Your task to perform on an android device: Search for Mexican restaurants on Maps Image 0: 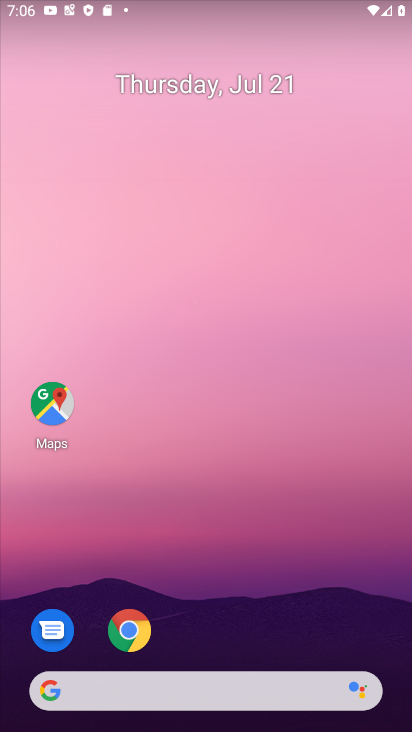
Step 0: click (45, 412)
Your task to perform on an android device: Search for Mexican restaurants on Maps Image 1: 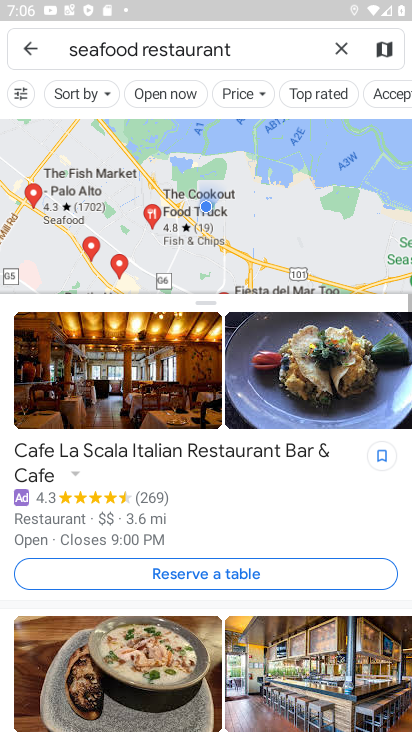
Step 1: click (344, 42)
Your task to perform on an android device: Search for Mexican restaurants on Maps Image 2: 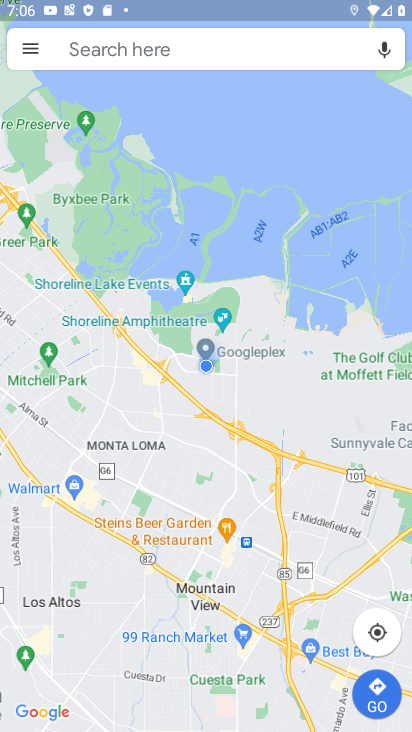
Step 2: click (111, 50)
Your task to perform on an android device: Search for Mexican restaurants on Maps Image 3: 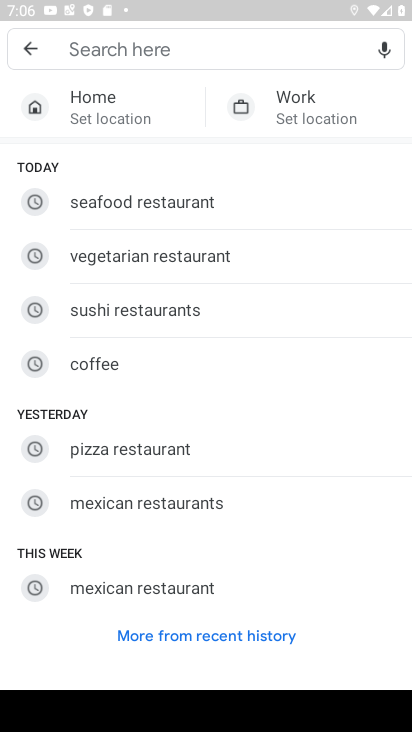
Step 3: click (122, 500)
Your task to perform on an android device: Search for Mexican restaurants on Maps Image 4: 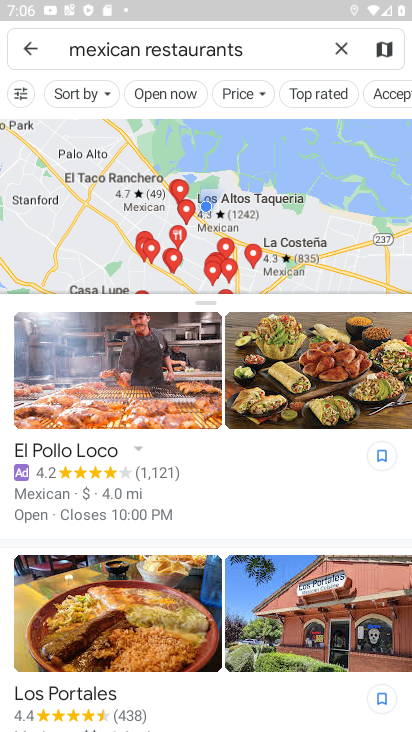
Step 4: task complete